Your task to perform on an android device: Go to eBay Image 0: 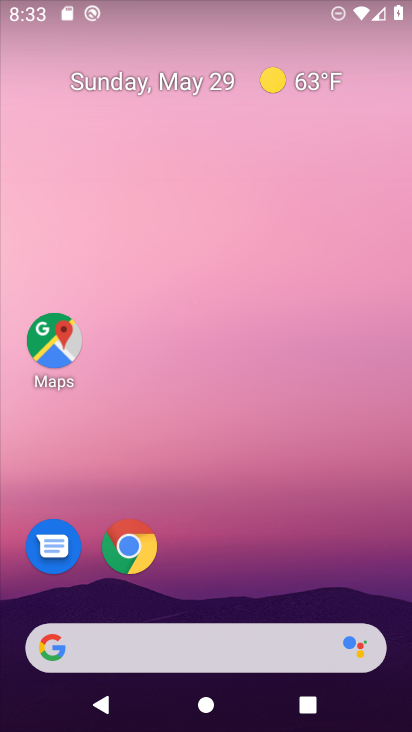
Step 0: click (131, 557)
Your task to perform on an android device: Go to eBay Image 1: 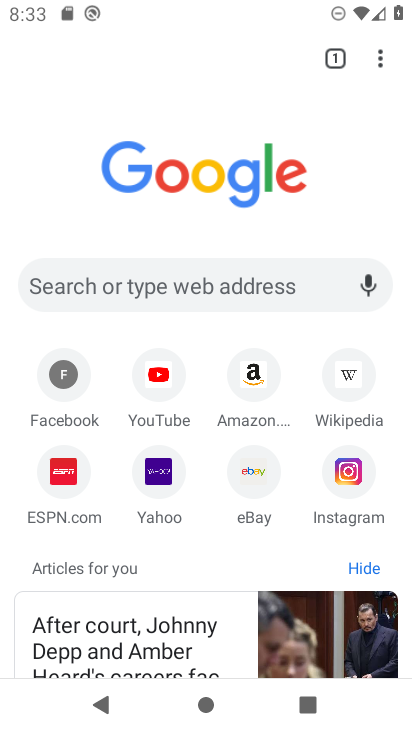
Step 1: click (251, 471)
Your task to perform on an android device: Go to eBay Image 2: 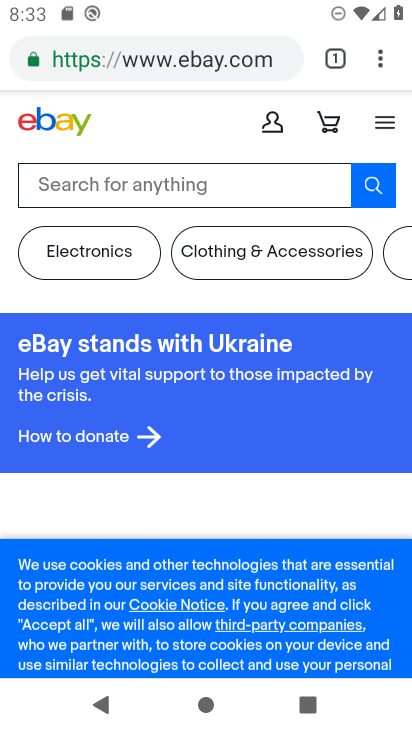
Step 2: drag from (225, 614) to (223, 544)
Your task to perform on an android device: Go to eBay Image 3: 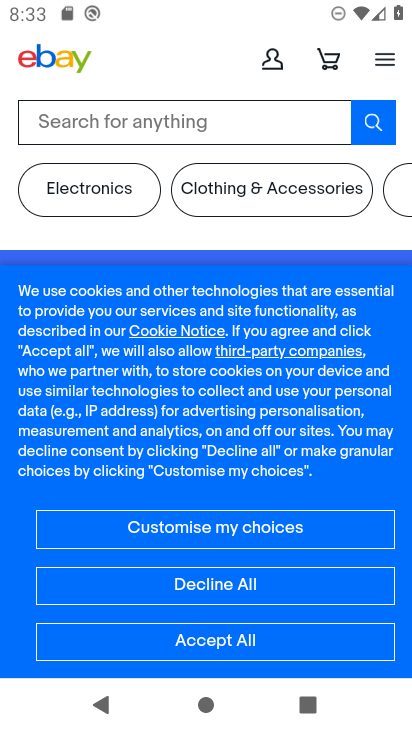
Step 3: click (227, 649)
Your task to perform on an android device: Go to eBay Image 4: 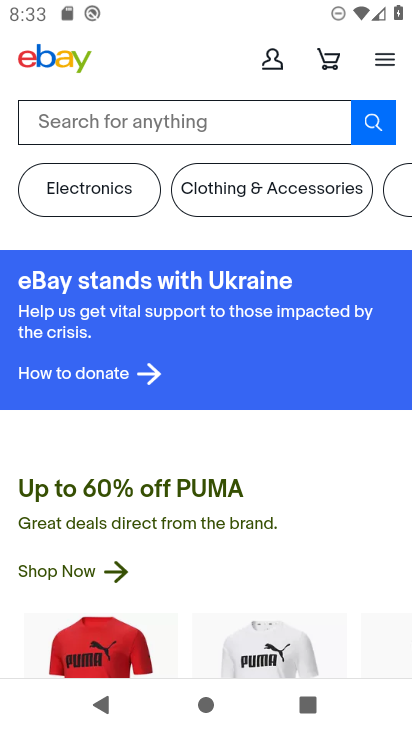
Step 4: task complete